Your task to perform on an android device: When is my next meeting? Image 0: 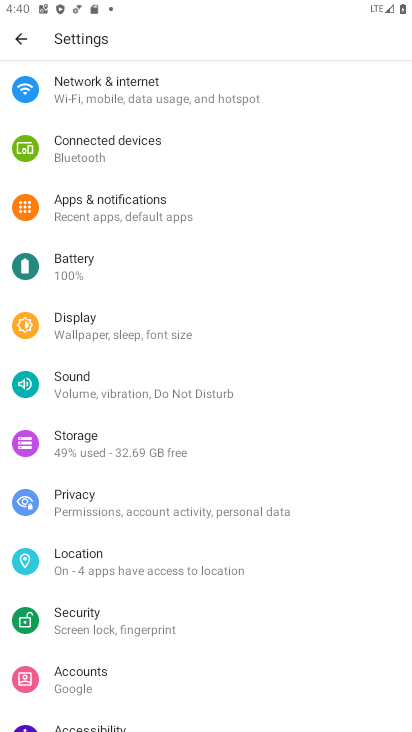
Step 0: press home button
Your task to perform on an android device: When is my next meeting? Image 1: 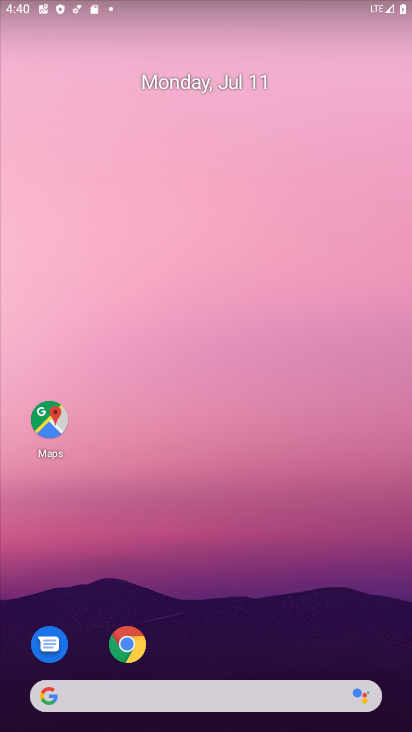
Step 1: drag from (271, 577) to (263, 163)
Your task to perform on an android device: When is my next meeting? Image 2: 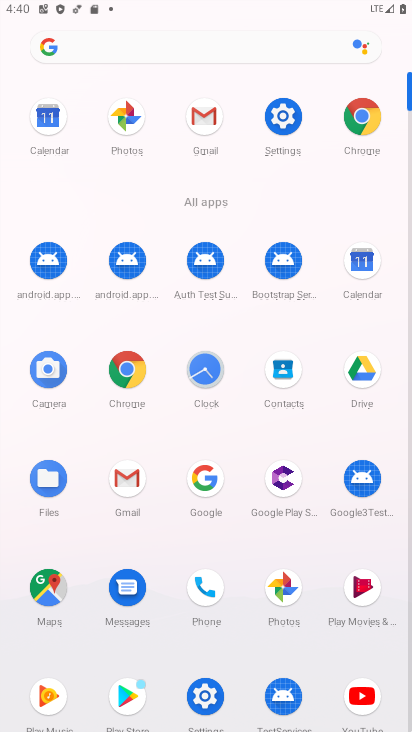
Step 2: click (355, 272)
Your task to perform on an android device: When is my next meeting? Image 3: 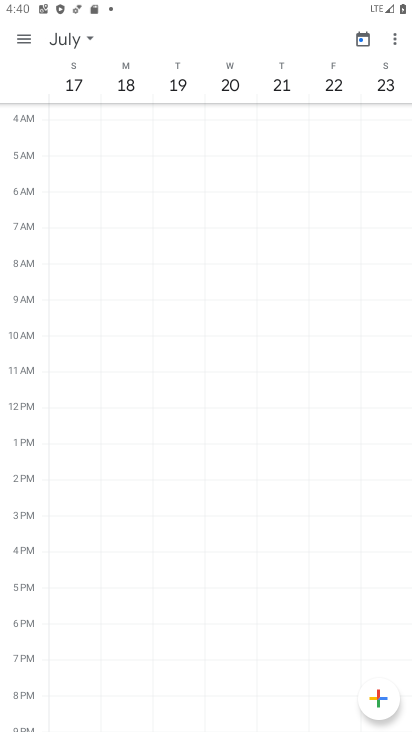
Step 3: click (36, 46)
Your task to perform on an android device: When is my next meeting? Image 4: 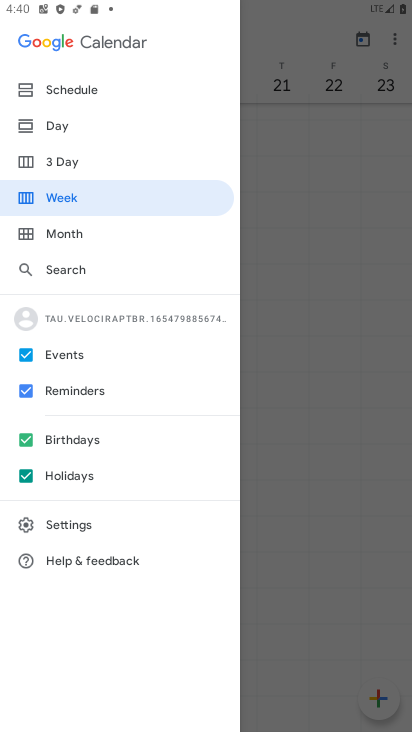
Step 4: click (309, 353)
Your task to perform on an android device: When is my next meeting? Image 5: 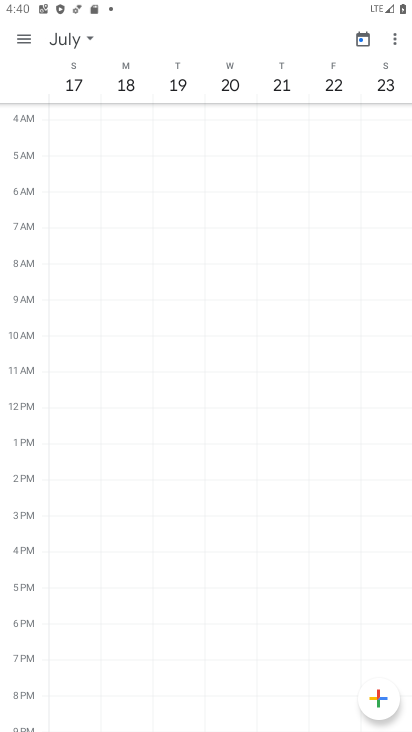
Step 5: click (94, 42)
Your task to perform on an android device: When is my next meeting? Image 6: 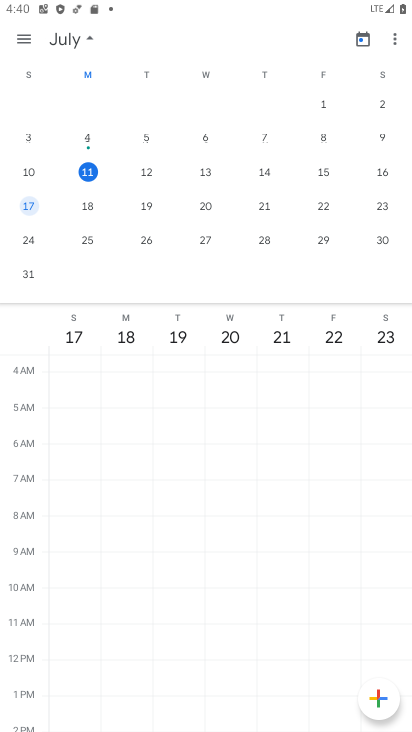
Step 6: click (259, 177)
Your task to perform on an android device: When is my next meeting? Image 7: 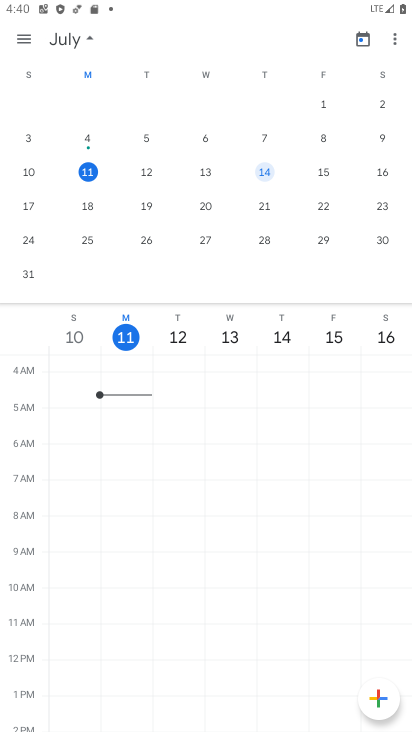
Step 7: task complete